Your task to perform on an android device: check google app version Image 0: 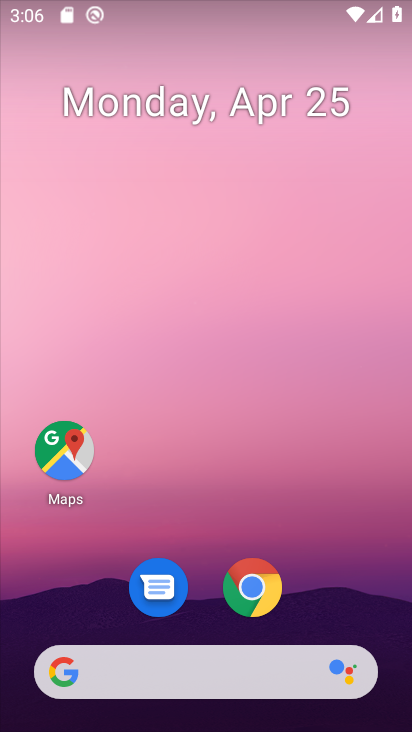
Step 0: drag from (362, 607) to (282, 118)
Your task to perform on an android device: check google app version Image 1: 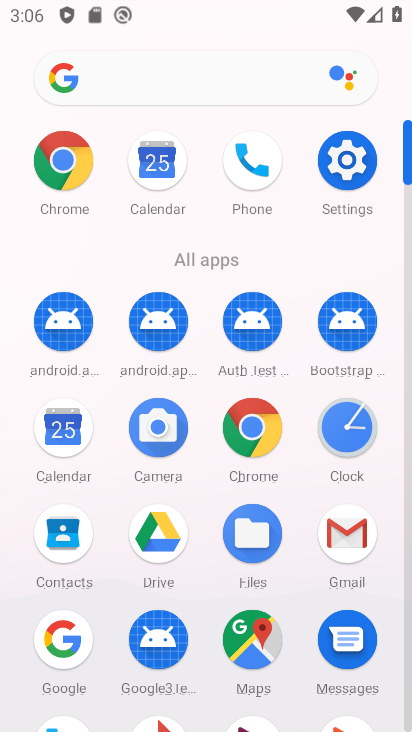
Step 1: click (76, 646)
Your task to perform on an android device: check google app version Image 2: 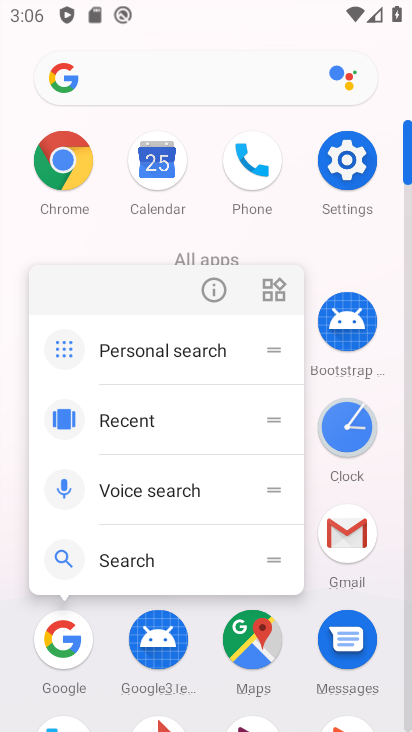
Step 2: click (207, 287)
Your task to perform on an android device: check google app version Image 3: 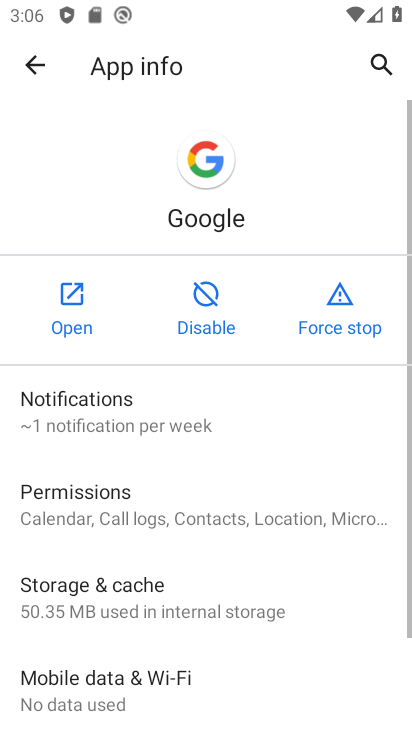
Step 3: drag from (189, 674) to (147, 83)
Your task to perform on an android device: check google app version Image 4: 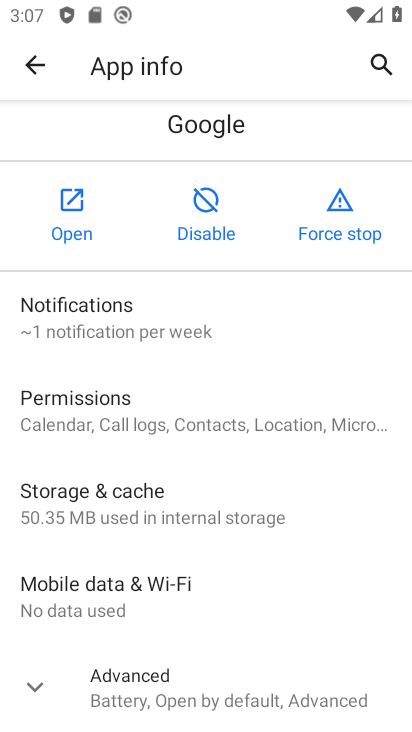
Step 4: click (60, 676)
Your task to perform on an android device: check google app version Image 5: 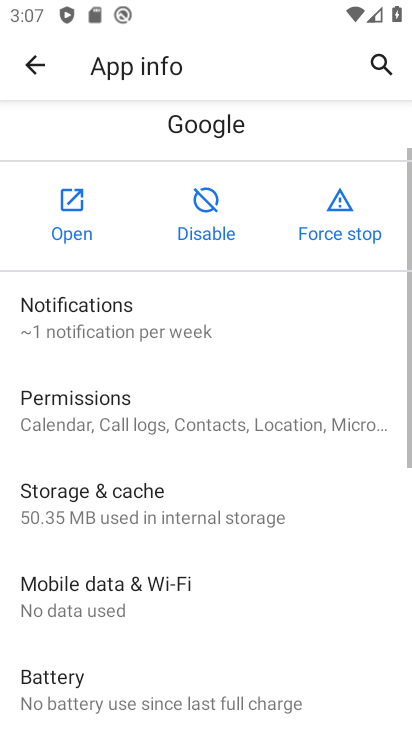
Step 5: task complete